Your task to perform on an android device: turn on sleep mode Image 0: 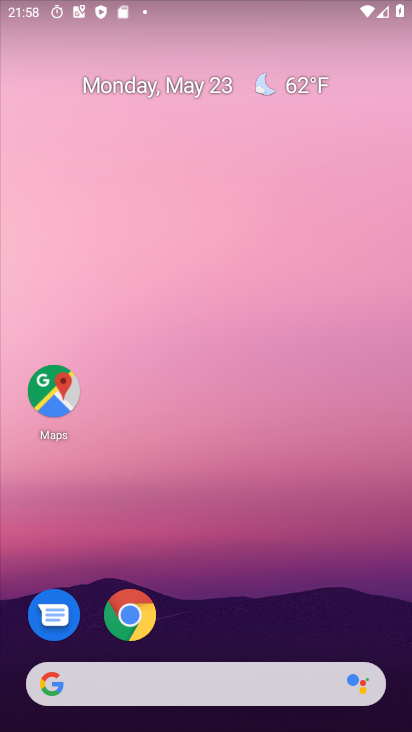
Step 0: drag from (264, 609) to (274, 76)
Your task to perform on an android device: turn on sleep mode Image 1: 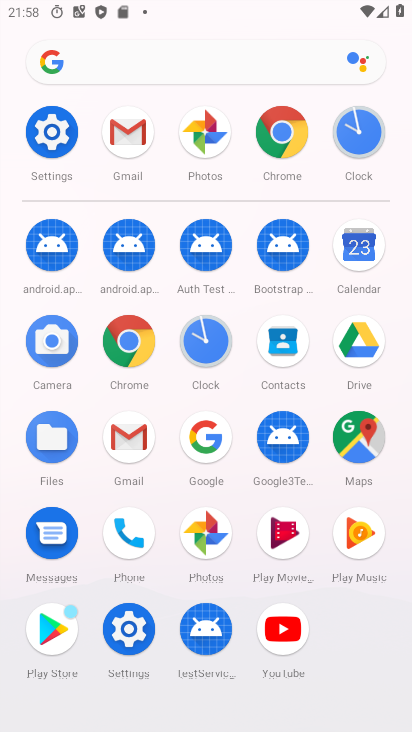
Step 1: click (51, 129)
Your task to perform on an android device: turn on sleep mode Image 2: 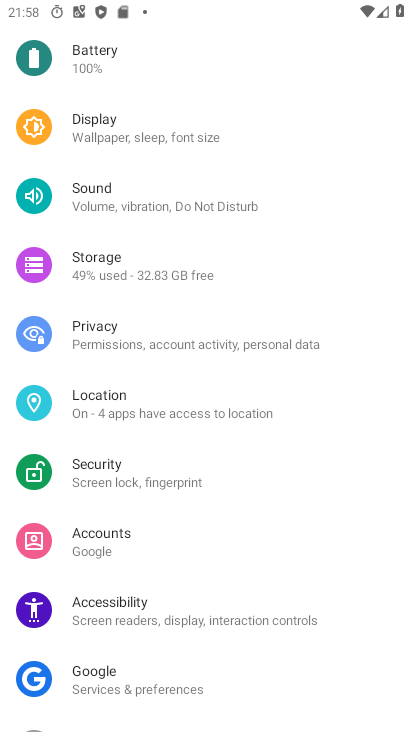
Step 2: drag from (206, 202) to (236, 534)
Your task to perform on an android device: turn on sleep mode Image 3: 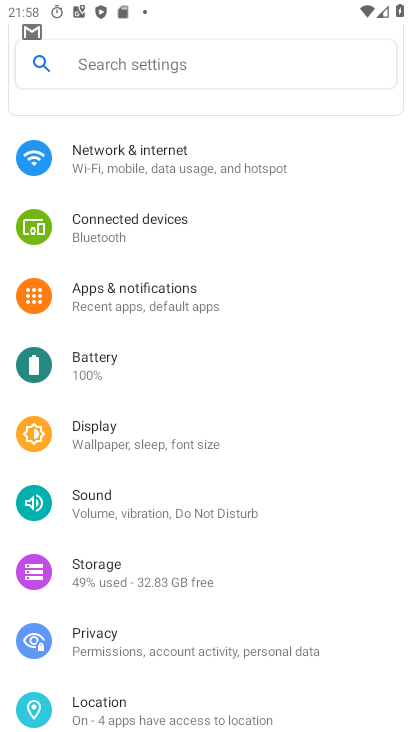
Step 3: click (144, 438)
Your task to perform on an android device: turn on sleep mode Image 4: 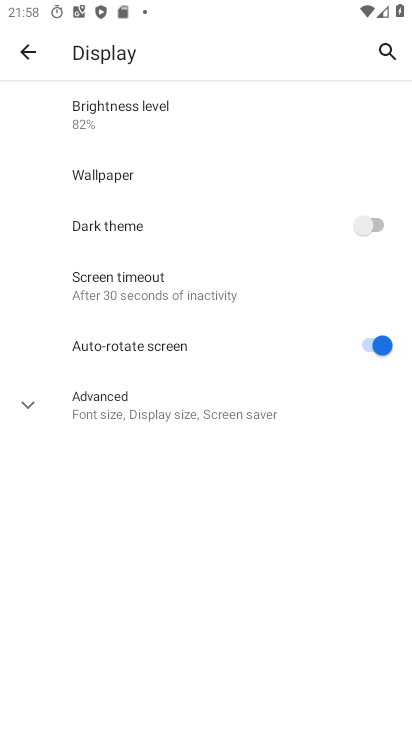
Step 4: click (152, 279)
Your task to perform on an android device: turn on sleep mode Image 5: 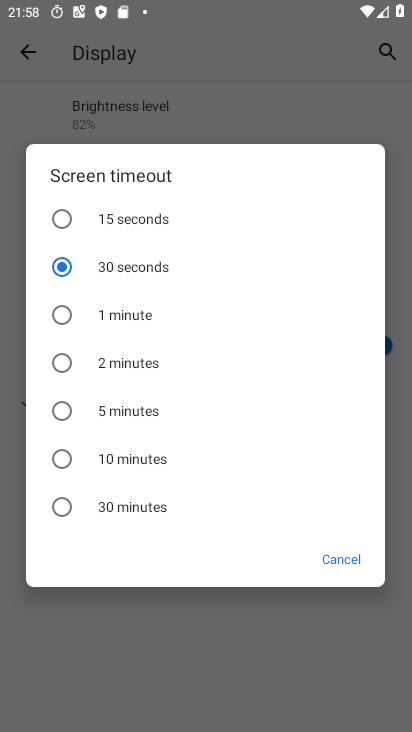
Step 5: task complete